Your task to perform on an android device: turn vacation reply on in the gmail app Image 0: 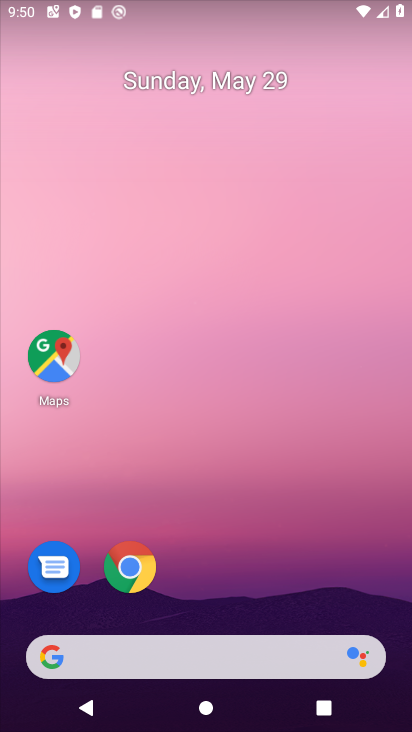
Step 0: drag from (383, 599) to (260, 35)
Your task to perform on an android device: turn vacation reply on in the gmail app Image 1: 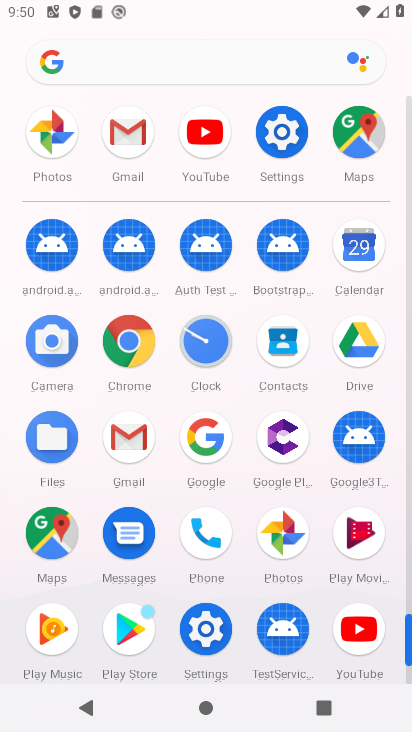
Step 1: click (124, 434)
Your task to perform on an android device: turn vacation reply on in the gmail app Image 2: 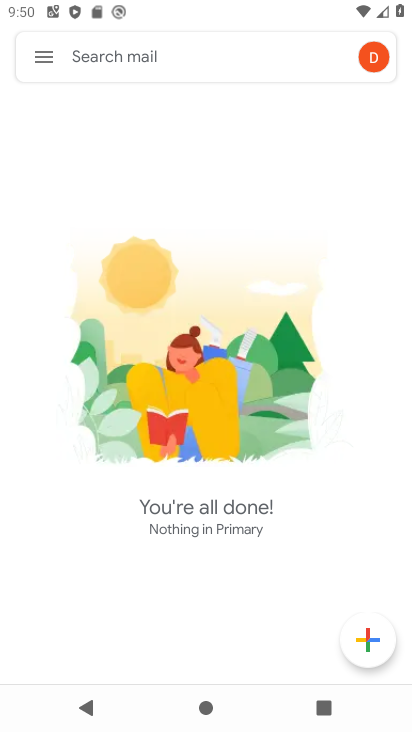
Step 2: click (46, 54)
Your task to perform on an android device: turn vacation reply on in the gmail app Image 3: 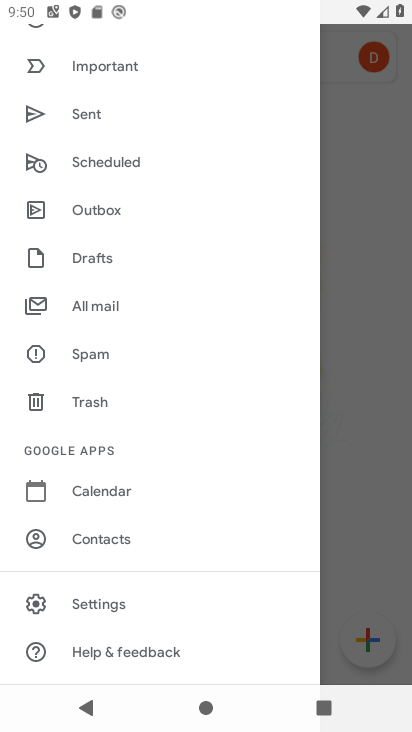
Step 3: click (101, 594)
Your task to perform on an android device: turn vacation reply on in the gmail app Image 4: 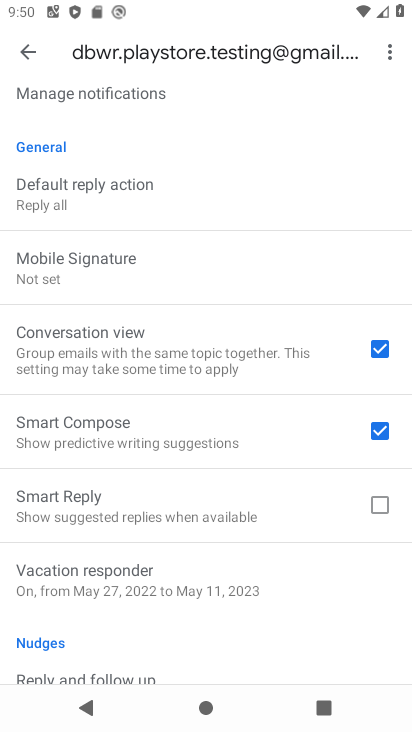
Step 4: click (160, 584)
Your task to perform on an android device: turn vacation reply on in the gmail app Image 5: 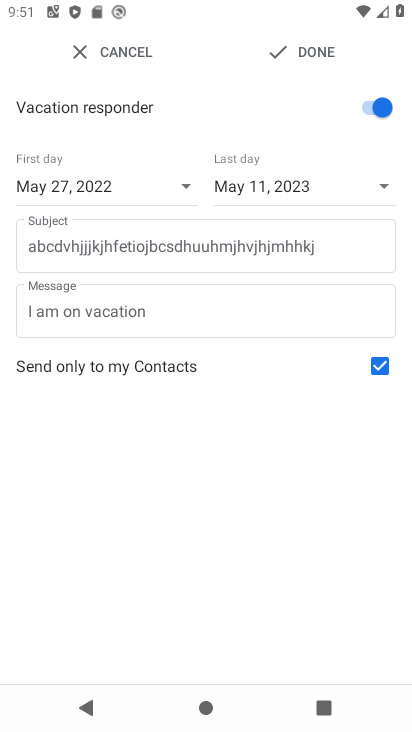
Step 5: task complete